Your task to perform on an android device: Open Yahoo.com Image 0: 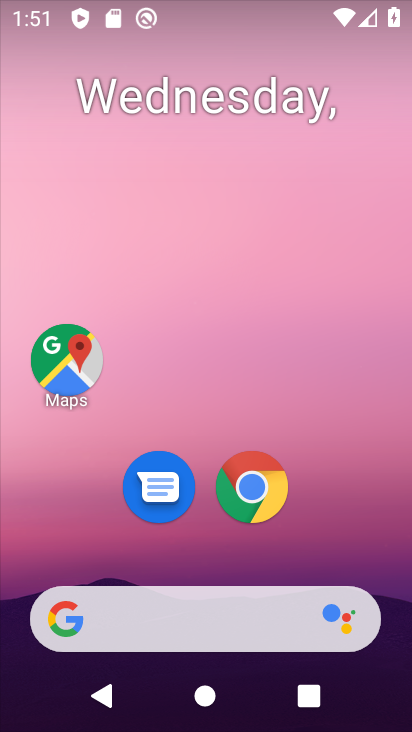
Step 0: click (262, 494)
Your task to perform on an android device: Open Yahoo.com Image 1: 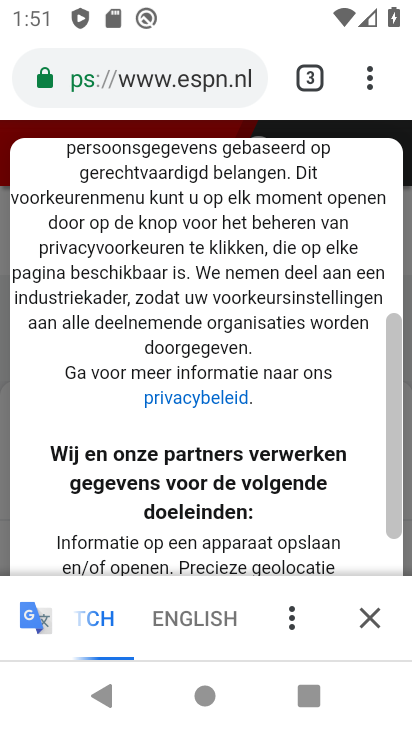
Step 1: click (365, 78)
Your task to perform on an android device: Open Yahoo.com Image 2: 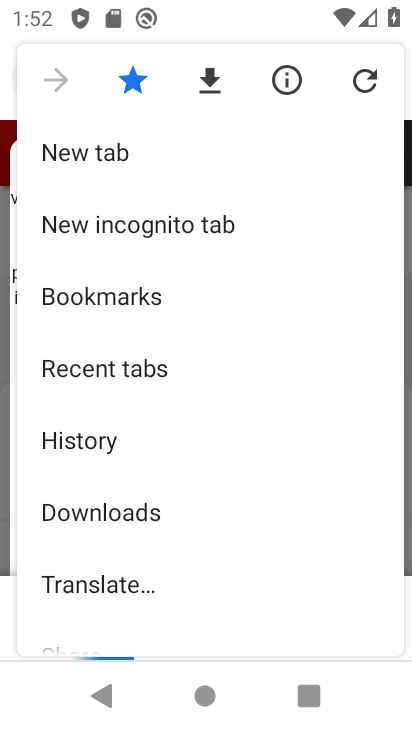
Step 2: click (119, 157)
Your task to perform on an android device: Open Yahoo.com Image 3: 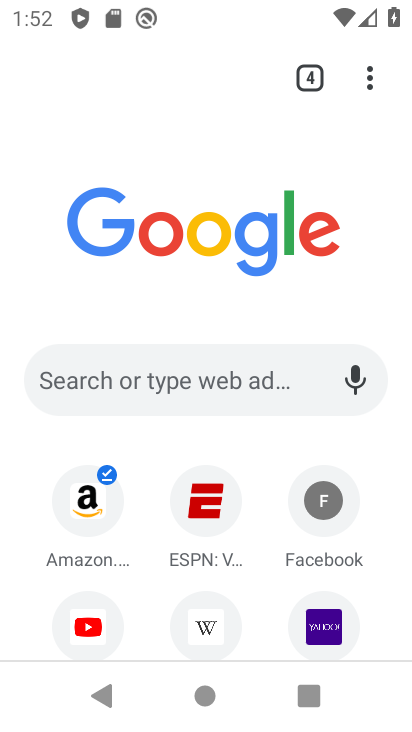
Step 3: click (324, 616)
Your task to perform on an android device: Open Yahoo.com Image 4: 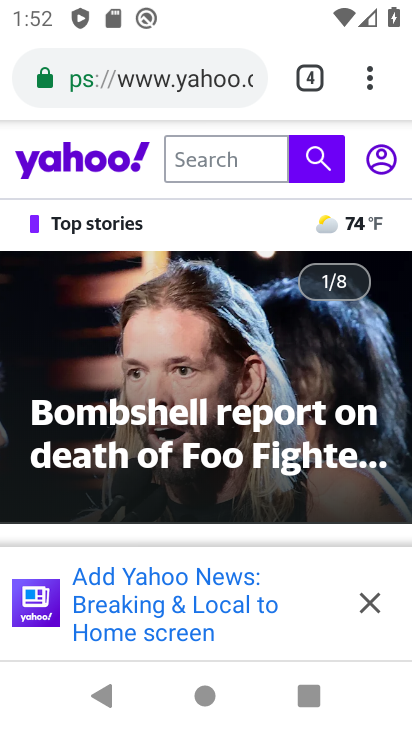
Step 4: task complete